Your task to perform on an android device: Open Reddit.com Image 0: 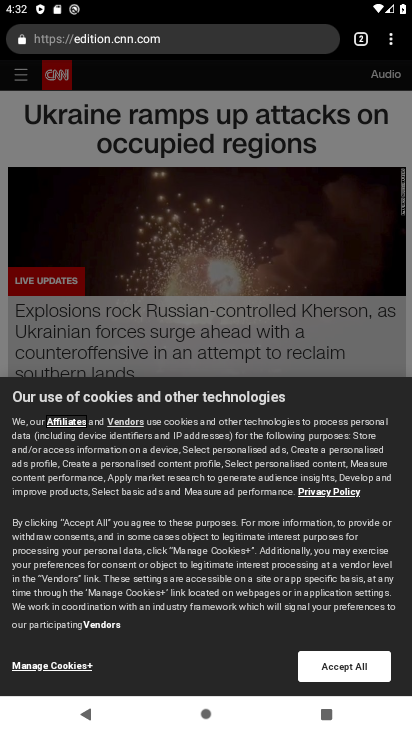
Step 0: press home button
Your task to perform on an android device: Open Reddit.com Image 1: 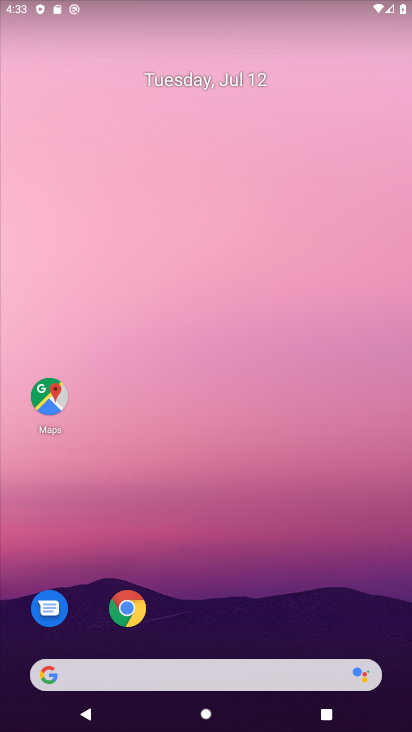
Step 1: click (135, 681)
Your task to perform on an android device: Open Reddit.com Image 2: 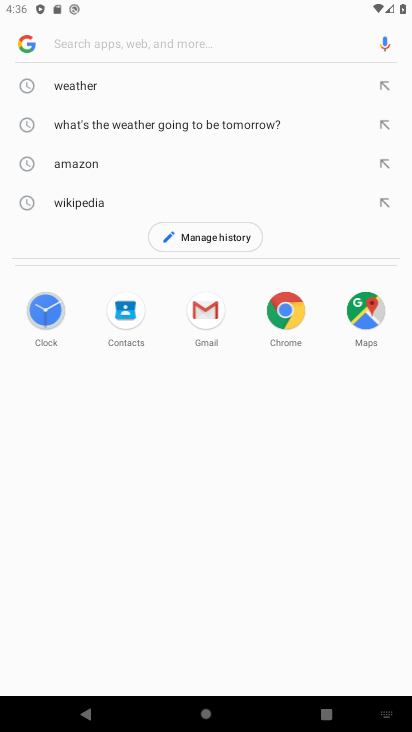
Step 2: type "reddit.com"
Your task to perform on an android device: Open Reddit.com Image 3: 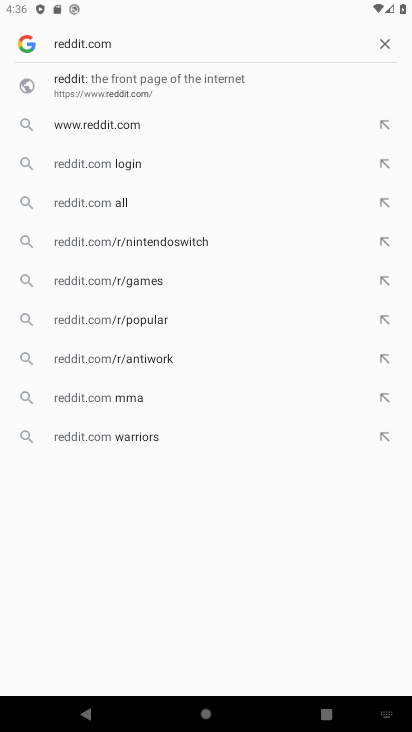
Step 3: click (165, 71)
Your task to perform on an android device: Open Reddit.com Image 4: 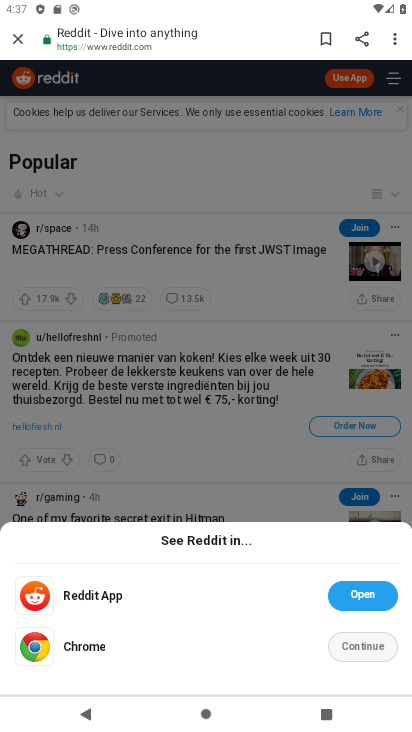
Step 4: task complete